Your task to perform on an android device: Open the stopwatch Image 0: 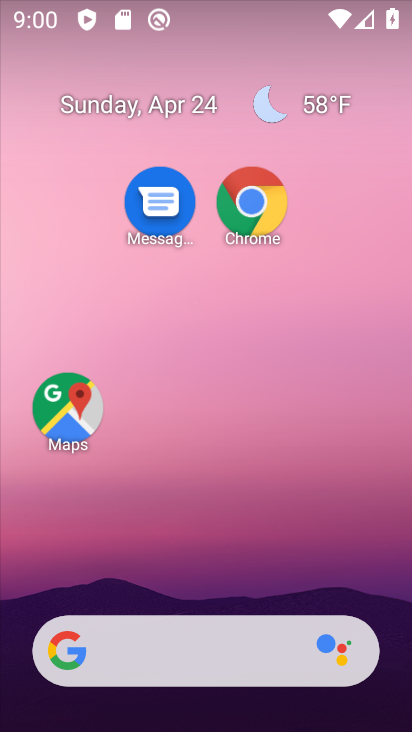
Step 0: click (212, 71)
Your task to perform on an android device: Open the stopwatch Image 1: 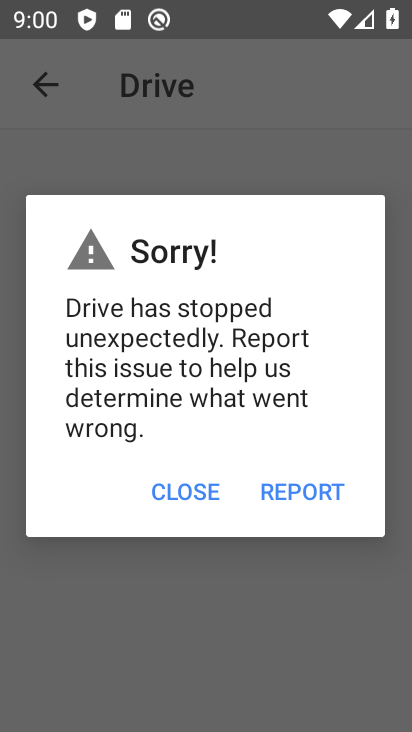
Step 1: press home button
Your task to perform on an android device: Open the stopwatch Image 2: 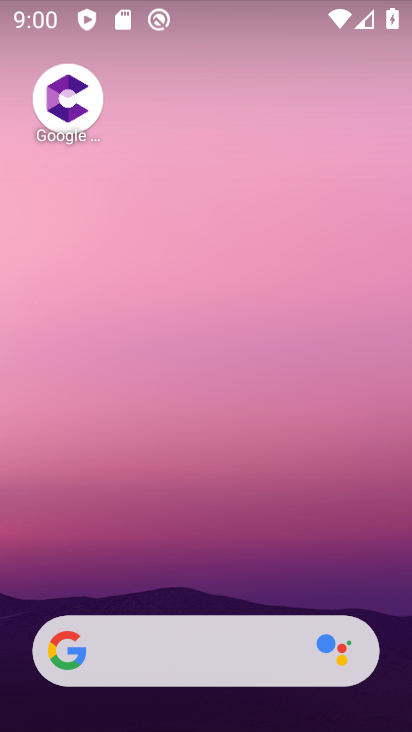
Step 2: drag from (209, 723) to (162, 139)
Your task to perform on an android device: Open the stopwatch Image 3: 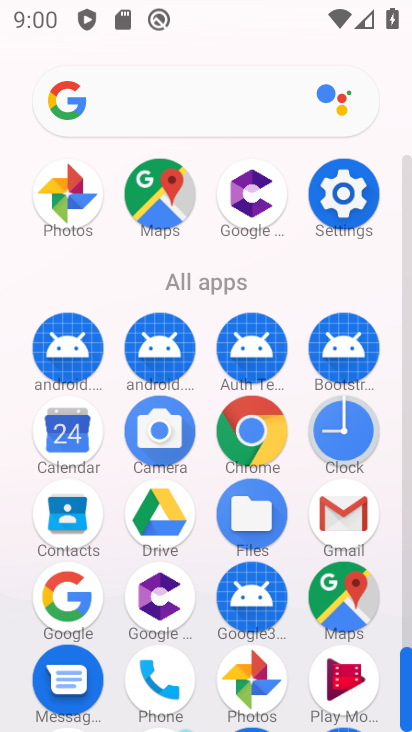
Step 3: click (341, 423)
Your task to perform on an android device: Open the stopwatch Image 4: 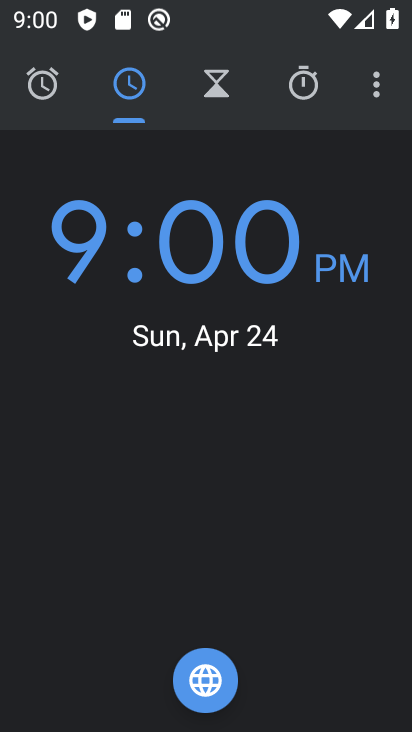
Step 4: click (308, 82)
Your task to perform on an android device: Open the stopwatch Image 5: 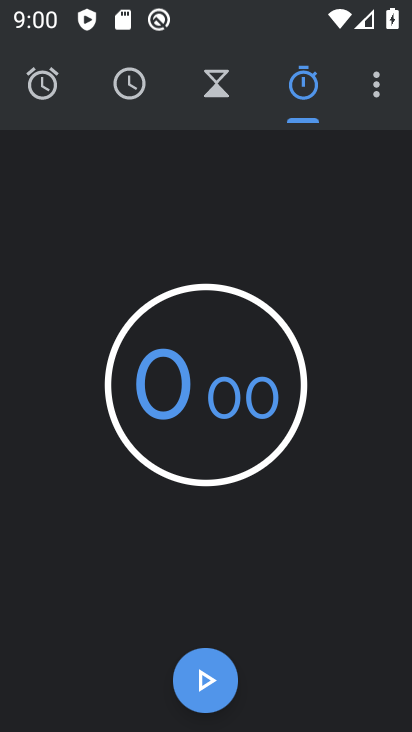
Step 5: task complete